Your task to perform on an android device: Open Wikipedia Image 0: 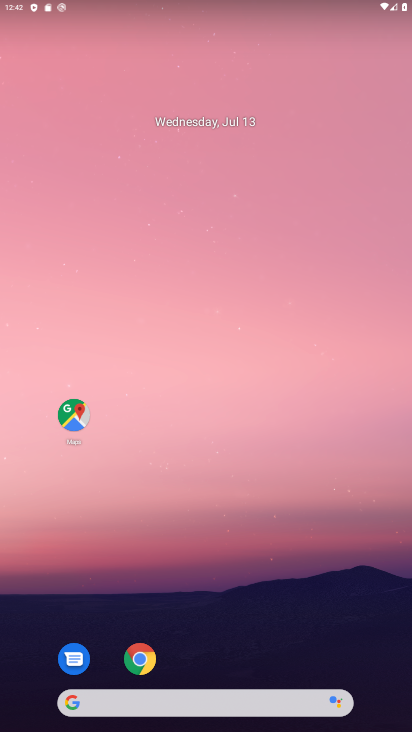
Step 0: drag from (210, 664) to (166, 7)
Your task to perform on an android device: Open Wikipedia Image 1: 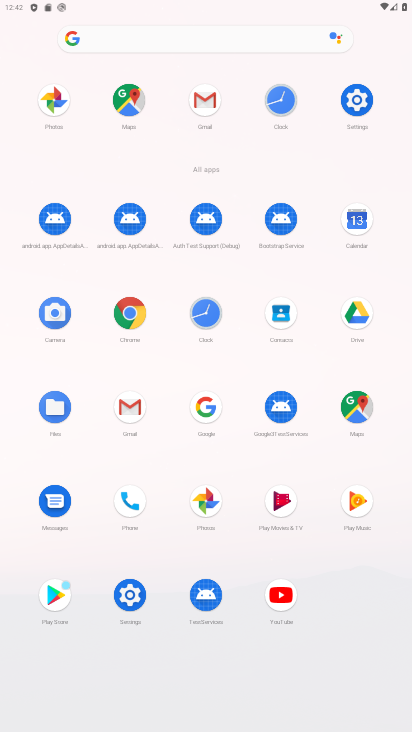
Step 1: click (126, 338)
Your task to perform on an android device: Open Wikipedia Image 2: 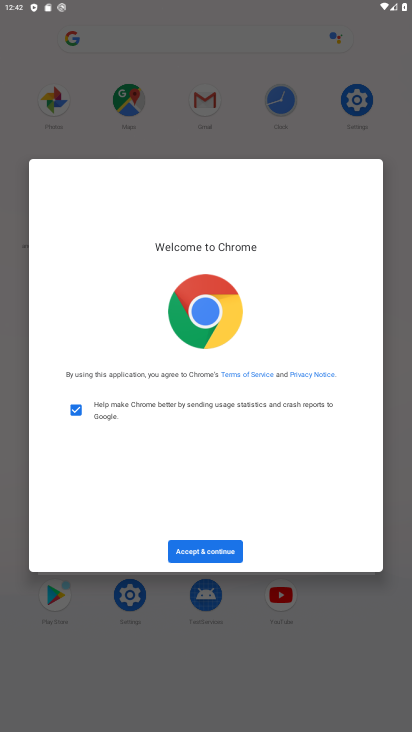
Step 2: click (216, 548)
Your task to perform on an android device: Open Wikipedia Image 3: 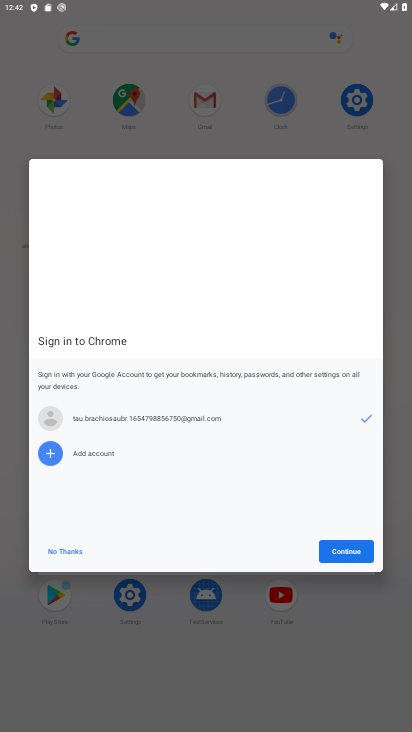
Step 3: click (70, 550)
Your task to perform on an android device: Open Wikipedia Image 4: 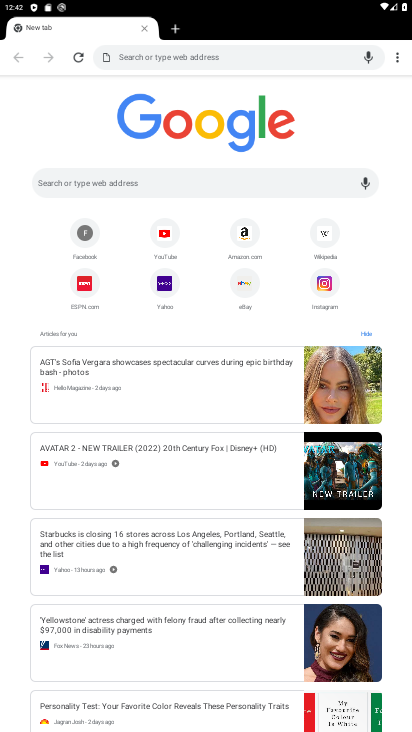
Step 4: drag from (397, 51) to (215, 311)
Your task to perform on an android device: Open Wikipedia Image 5: 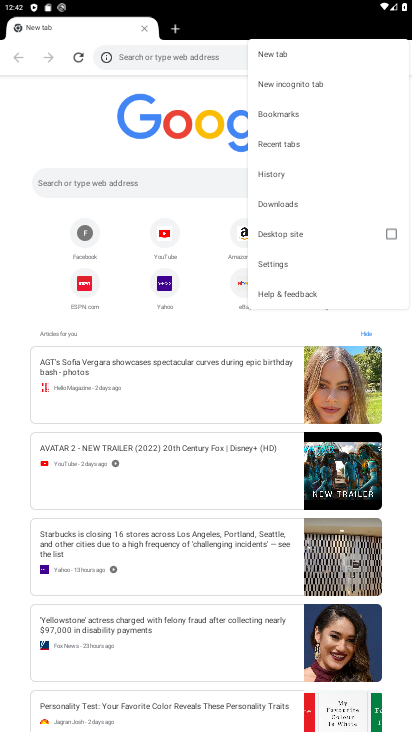
Step 5: drag from (216, 272) to (115, 278)
Your task to perform on an android device: Open Wikipedia Image 6: 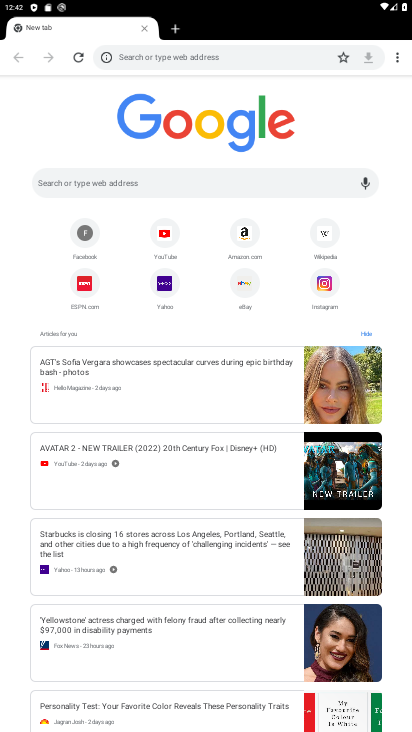
Step 6: click (321, 241)
Your task to perform on an android device: Open Wikipedia Image 7: 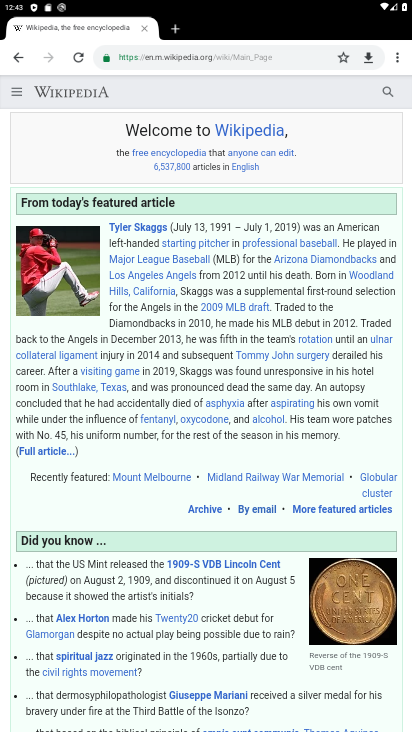
Step 7: task complete